Your task to perform on an android device: open app "PUBG MOBILE" Image 0: 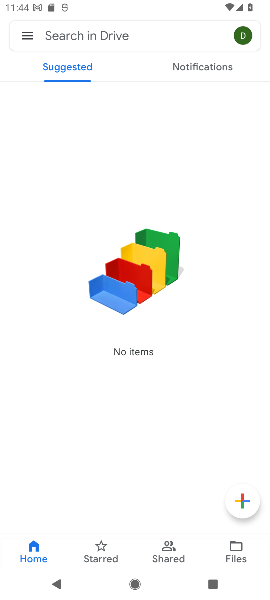
Step 0: press home button
Your task to perform on an android device: open app "PUBG MOBILE" Image 1: 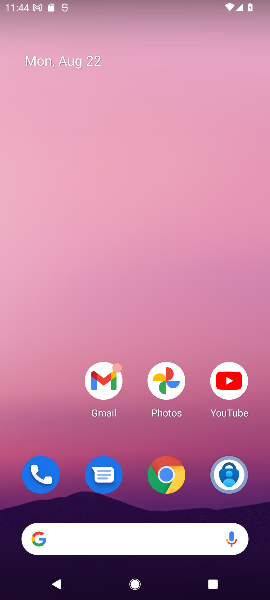
Step 1: drag from (123, 455) to (128, 145)
Your task to perform on an android device: open app "PUBG MOBILE" Image 2: 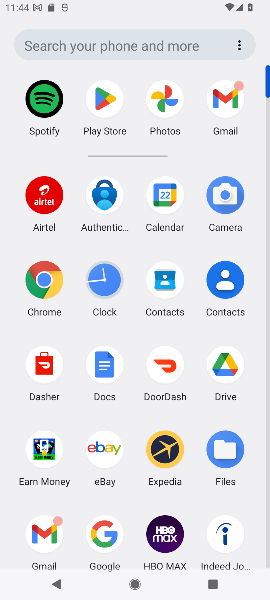
Step 2: click (107, 101)
Your task to perform on an android device: open app "PUBG MOBILE" Image 3: 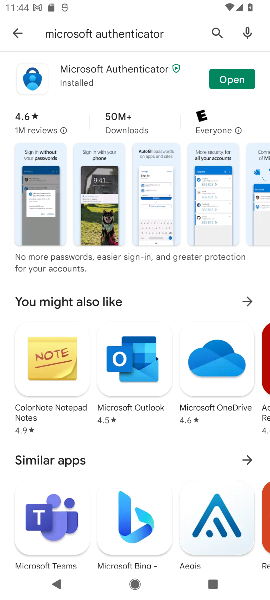
Step 3: click (13, 30)
Your task to perform on an android device: open app "PUBG MOBILE" Image 4: 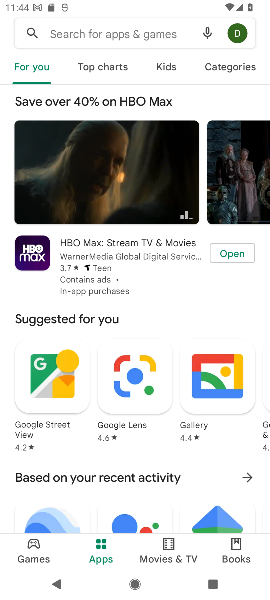
Step 4: click (125, 24)
Your task to perform on an android device: open app "PUBG MOBILE" Image 5: 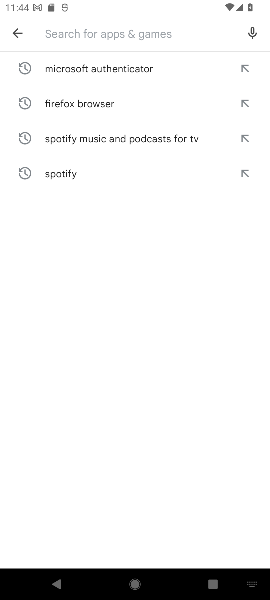
Step 5: type "PUBG MOBILE"
Your task to perform on an android device: open app "PUBG MOBILE" Image 6: 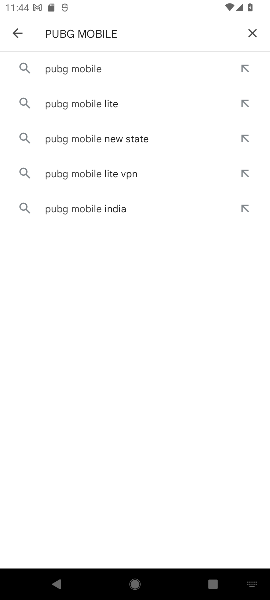
Step 6: click (95, 72)
Your task to perform on an android device: open app "PUBG MOBILE" Image 7: 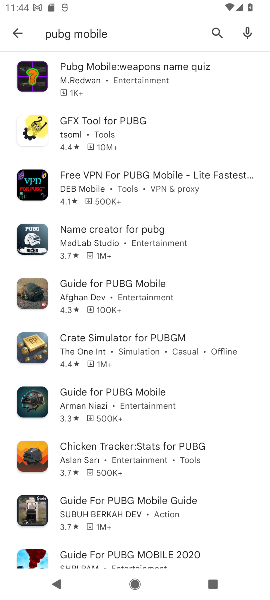
Step 7: click (95, 77)
Your task to perform on an android device: open app "PUBG MOBILE" Image 8: 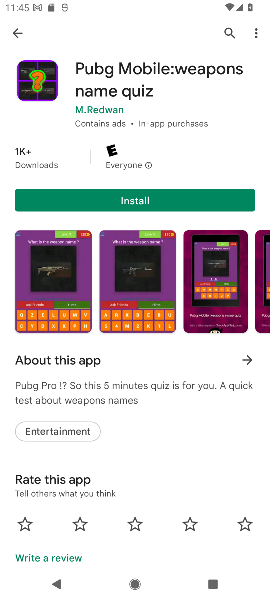
Step 8: click (138, 198)
Your task to perform on an android device: open app "PUBG MOBILE" Image 9: 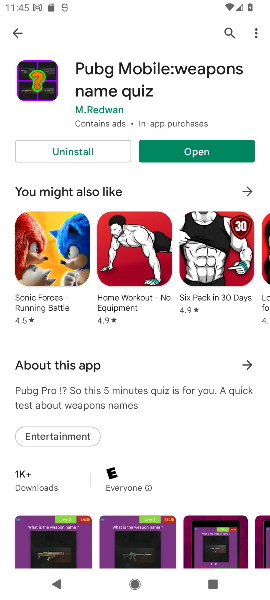
Step 9: click (201, 151)
Your task to perform on an android device: open app "PUBG MOBILE" Image 10: 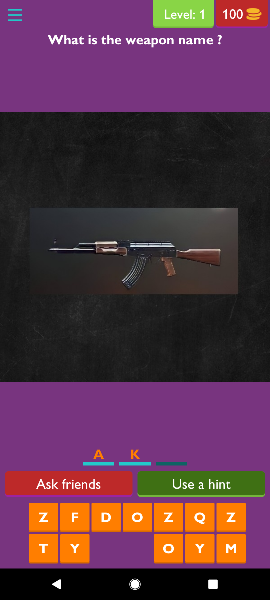
Step 10: task complete